Your task to perform on an android device: Turn on the flashlight Image 0: 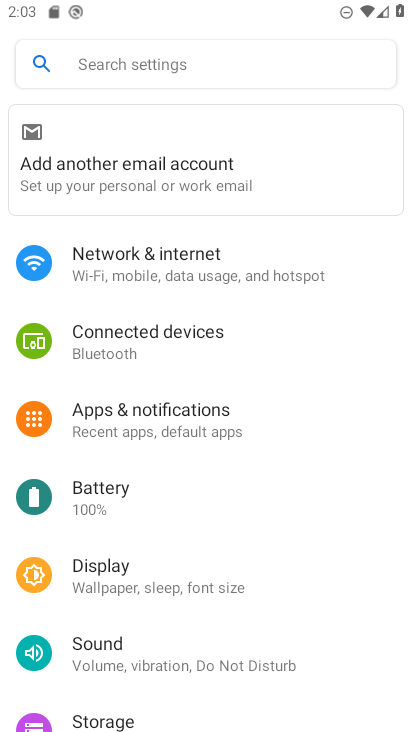
Step 0: click (328, 46)
Your task to perform on an android device: Turn on the flashlight Image 1: 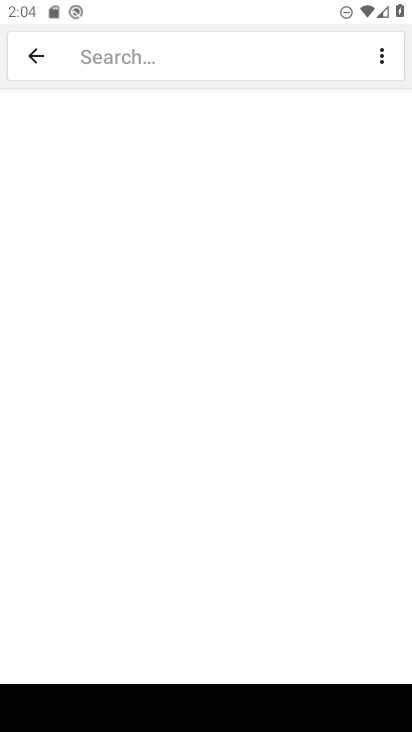
Step 1: type "Flashlight"
Your task to perform on an android device: Turn on the flashlight Image 2: 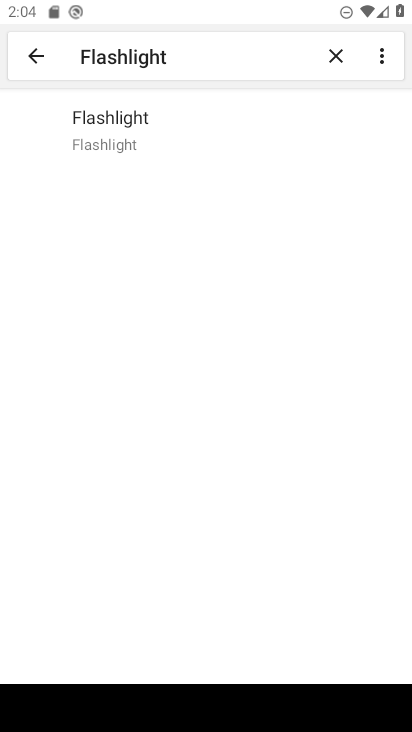
Step 2: click (136, 126)
Your task to perform on an android device: Turn on the flashlight Image 3: 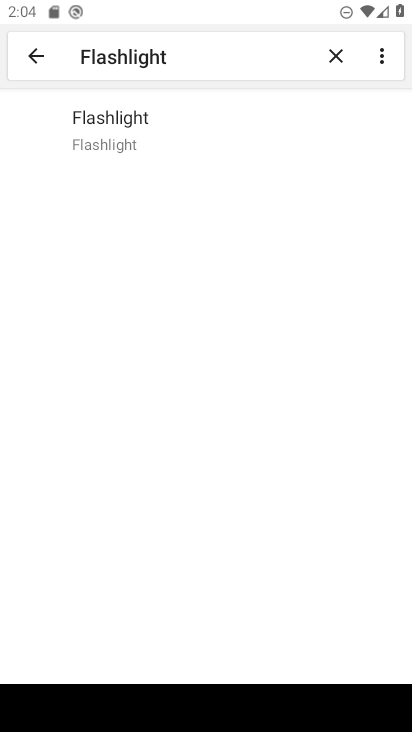
Step 3: click (136, 126)
Your task to perform on an android device: Turn on the flashlight Image 4: 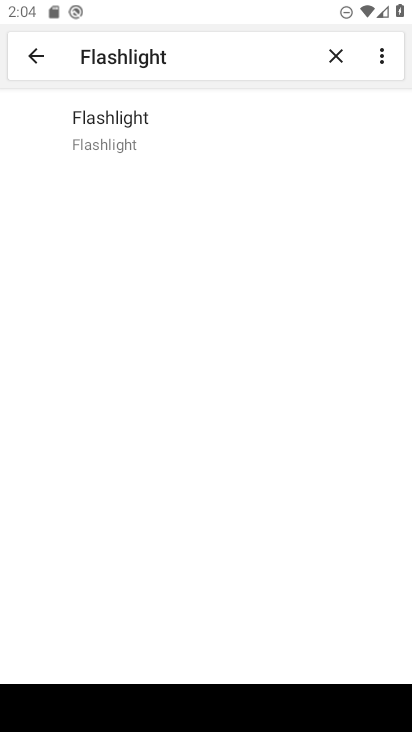
Step 4: task complete